Your task to perform on an android device: see tabs open on other devices in the chrome app Image 0: 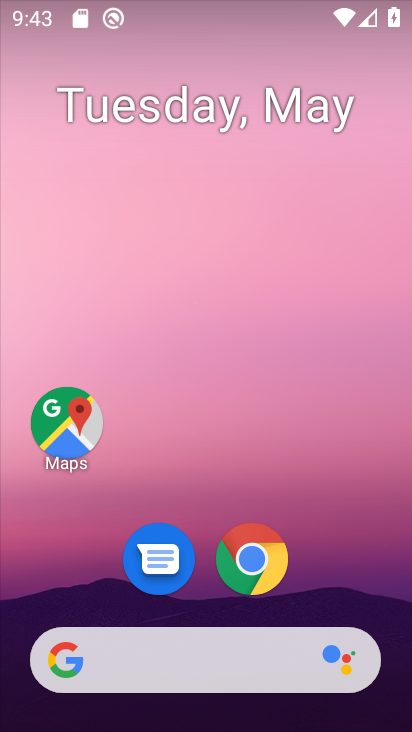
Step 0: drag from (391, 644) to (299, 90)
Your task to perform on an android device: see tabs open on other devices in the chrome app Image 1: 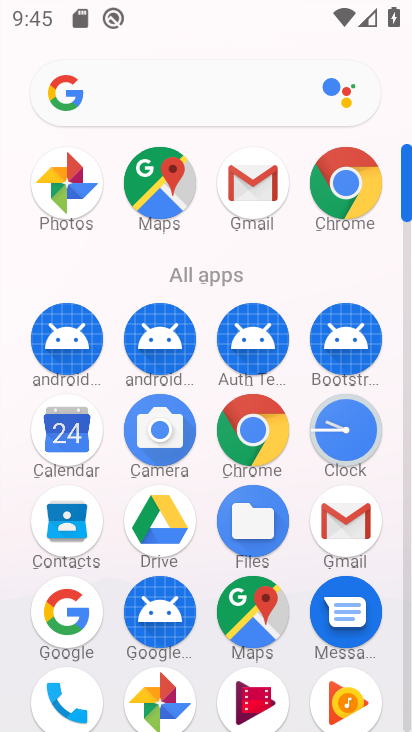
Step 1: click (337, 181)
Your task to perform on an android device: see tabs open on other devices in the chrome app Image 2: 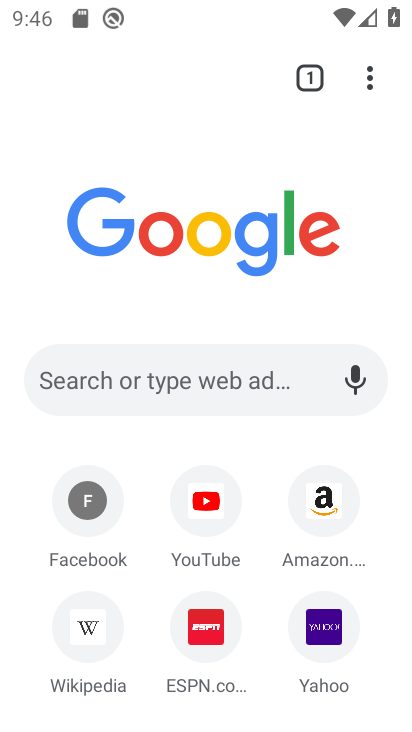
Step 2: task complete